Your task to perform on an android device: Add "dell xps" to the cart on walmart.com Image 0: 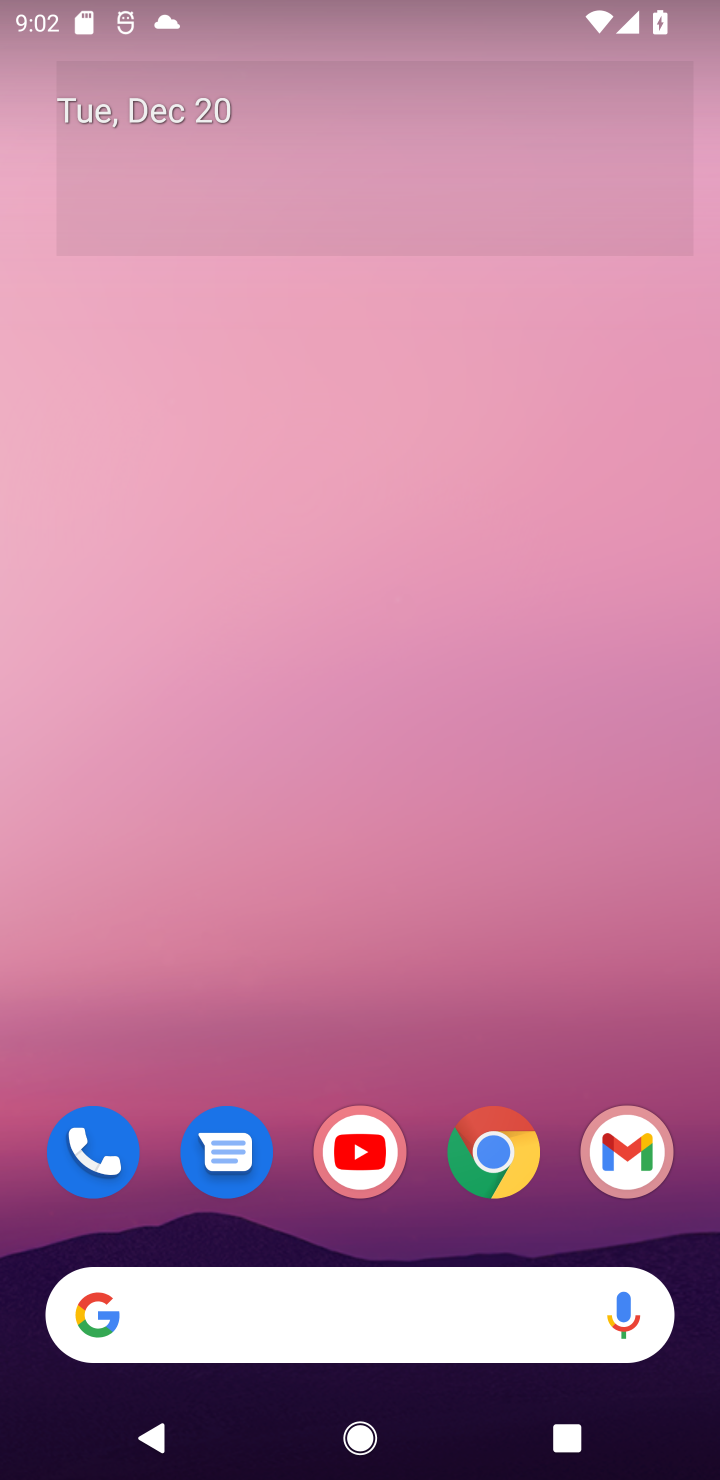
Step 0: click (517, 1167)
Your task to perform on an android device: Add "dell xps" to the cart on walmart.com Image 1: 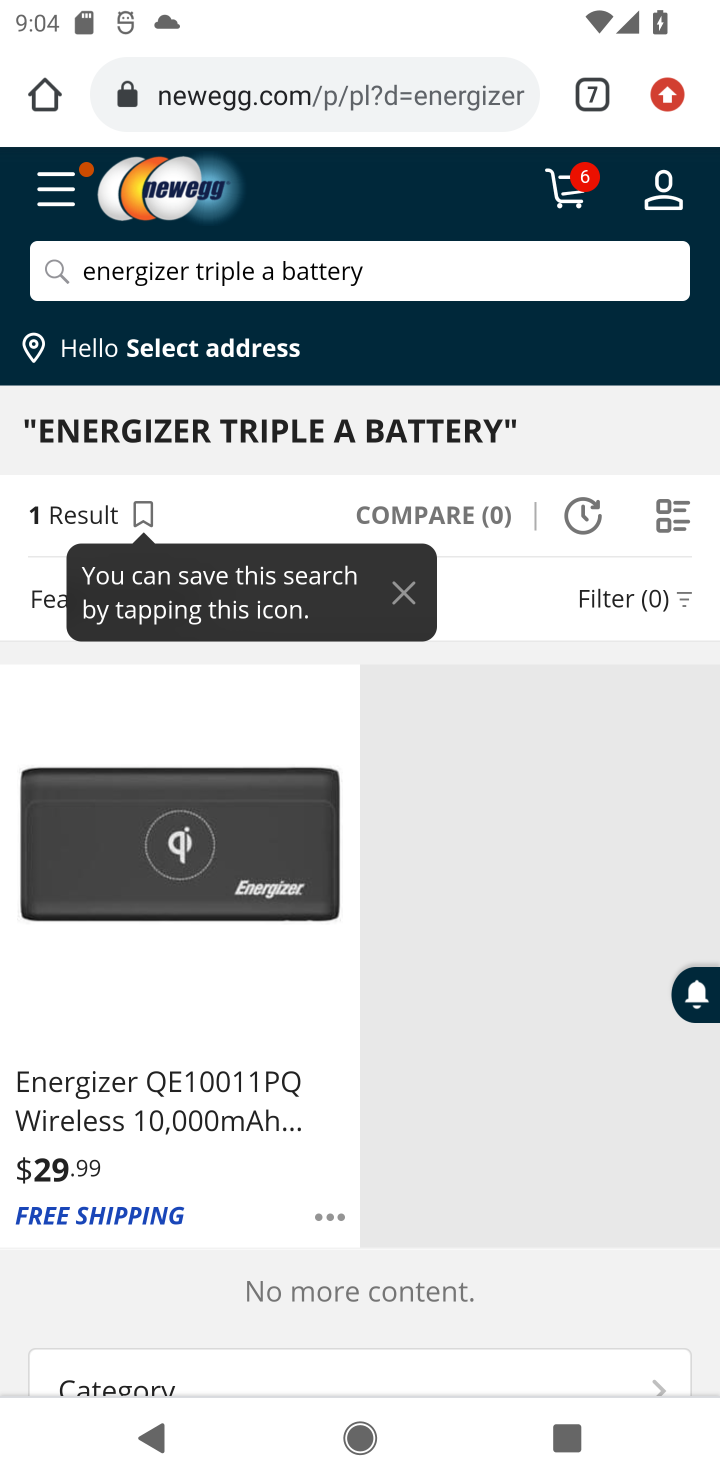
Step 1: click (582, 100)
Your task to perform on an android device: Add "dell xps" to the cart on walmart.com Image 2: 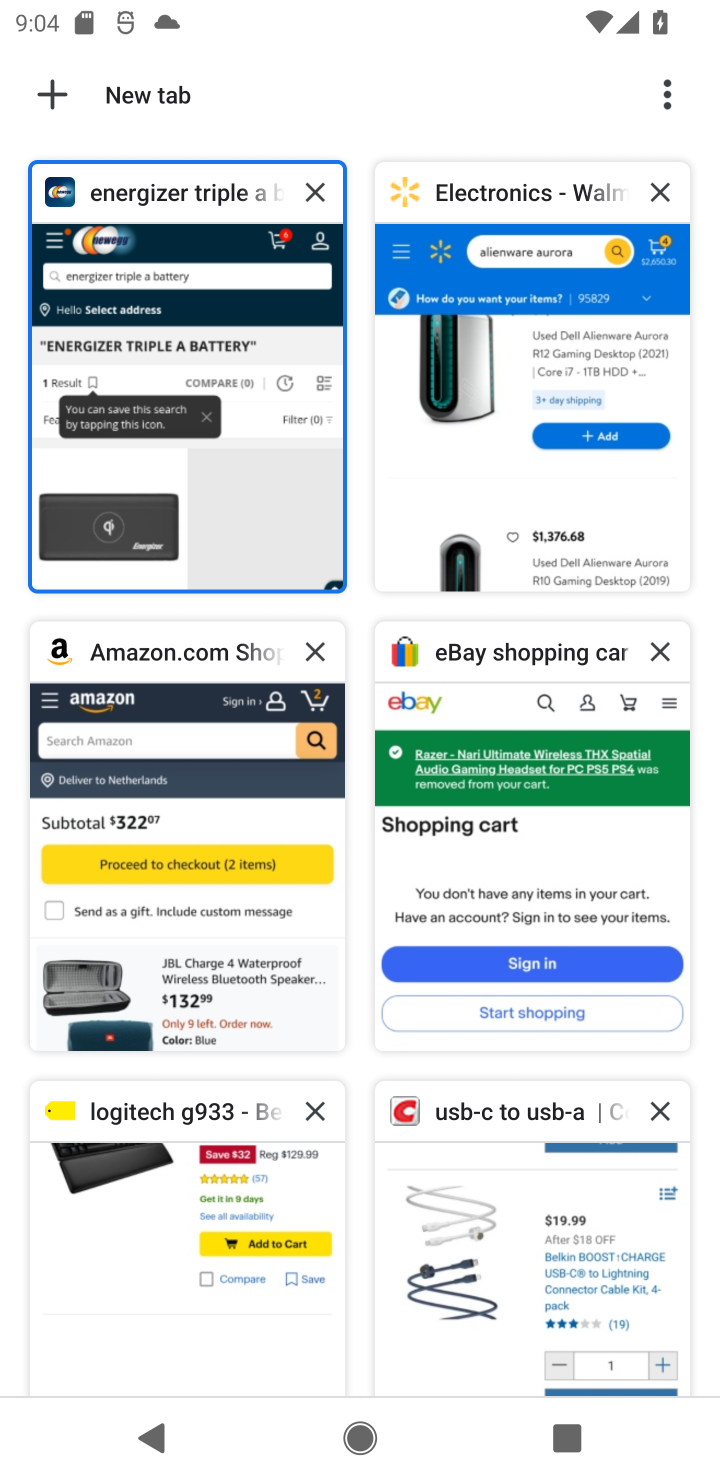
Step 2: click (509, 374)
Your task to perform on an android device: Add "dell xps" to the cart on walmart.com Image 3: 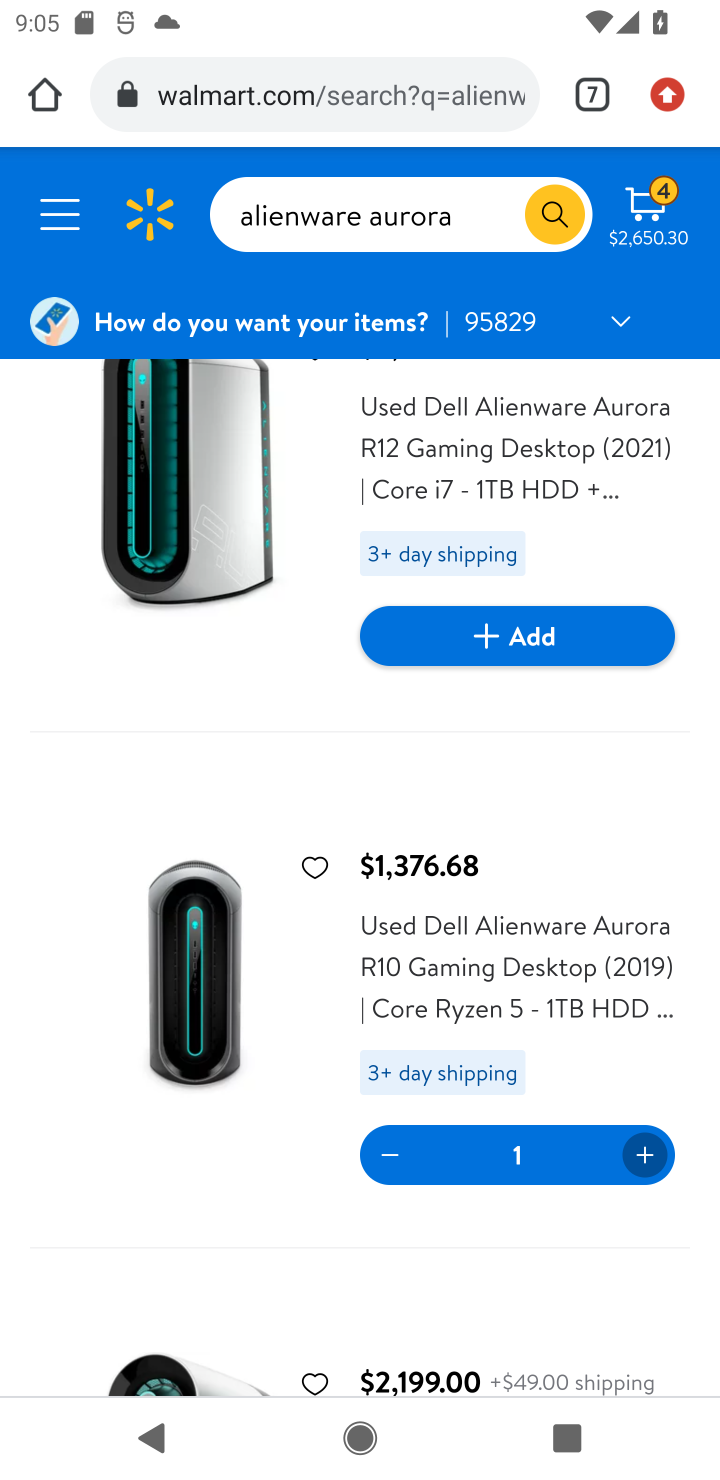
Step 3: click (454, 196)
Your task to perform on an android device: Add "dell xps" to the cart on walmart.com Image 4: 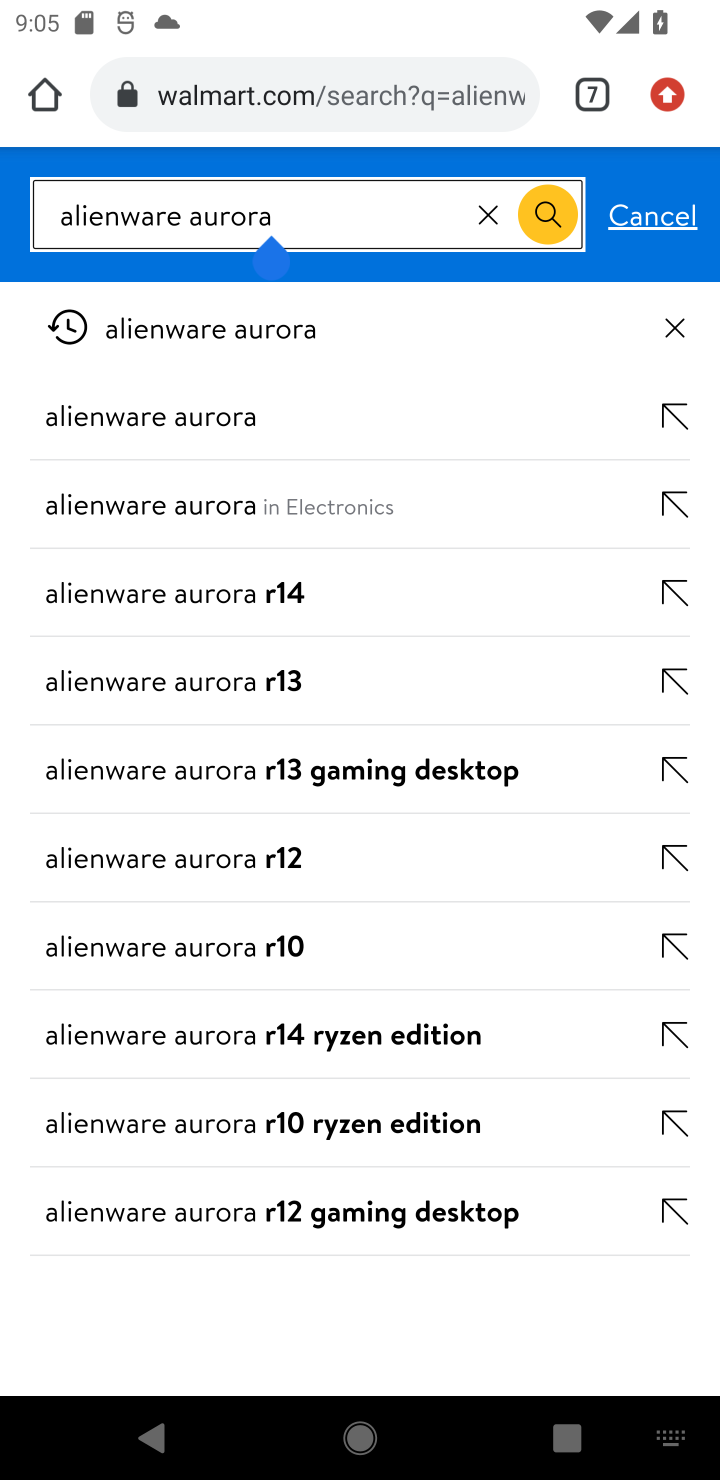
Step 4: click (498, 217)
Your task to perform on an android device: Add "dell xps" to the cart on walmart.com Image 5: 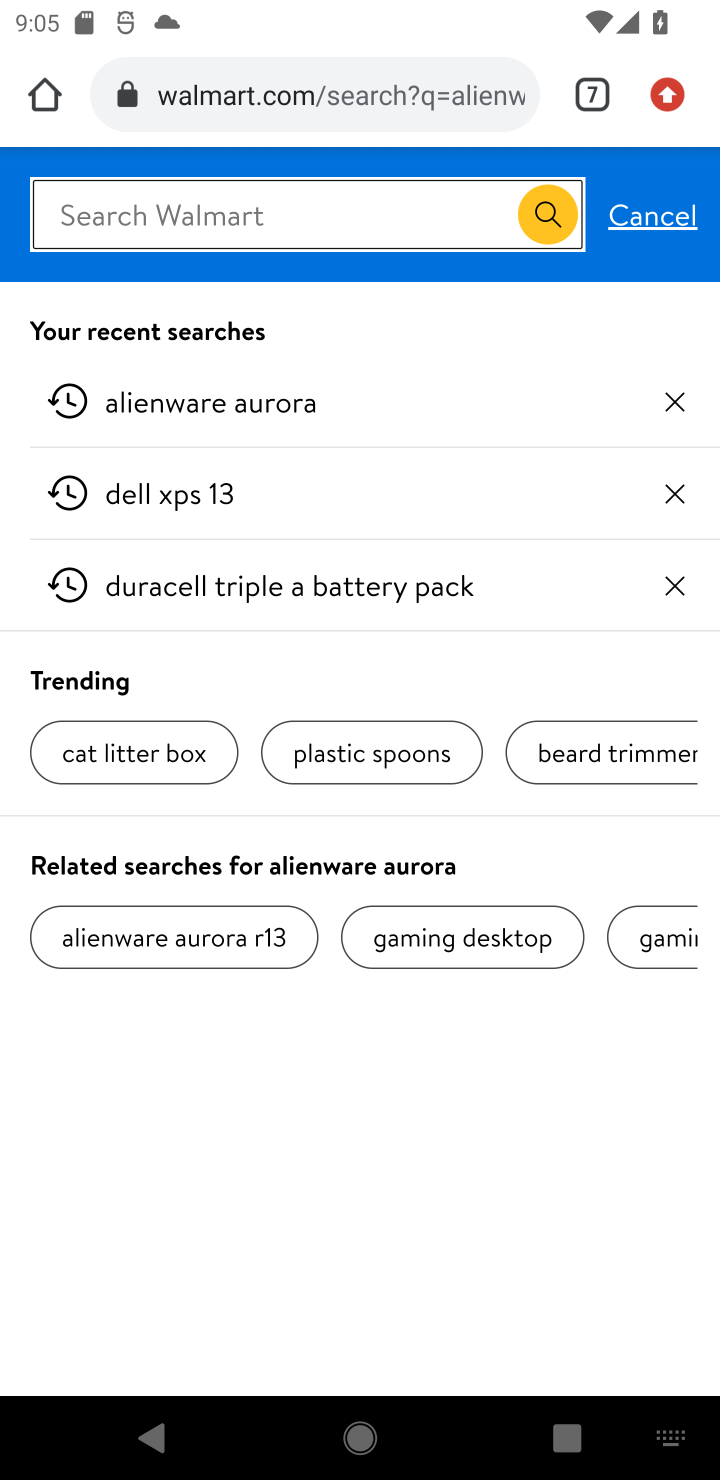
Step 5: type "dell xps"
Your task to perform on an android device: Add "dell xps" to the cart on walmart.com Image 6: 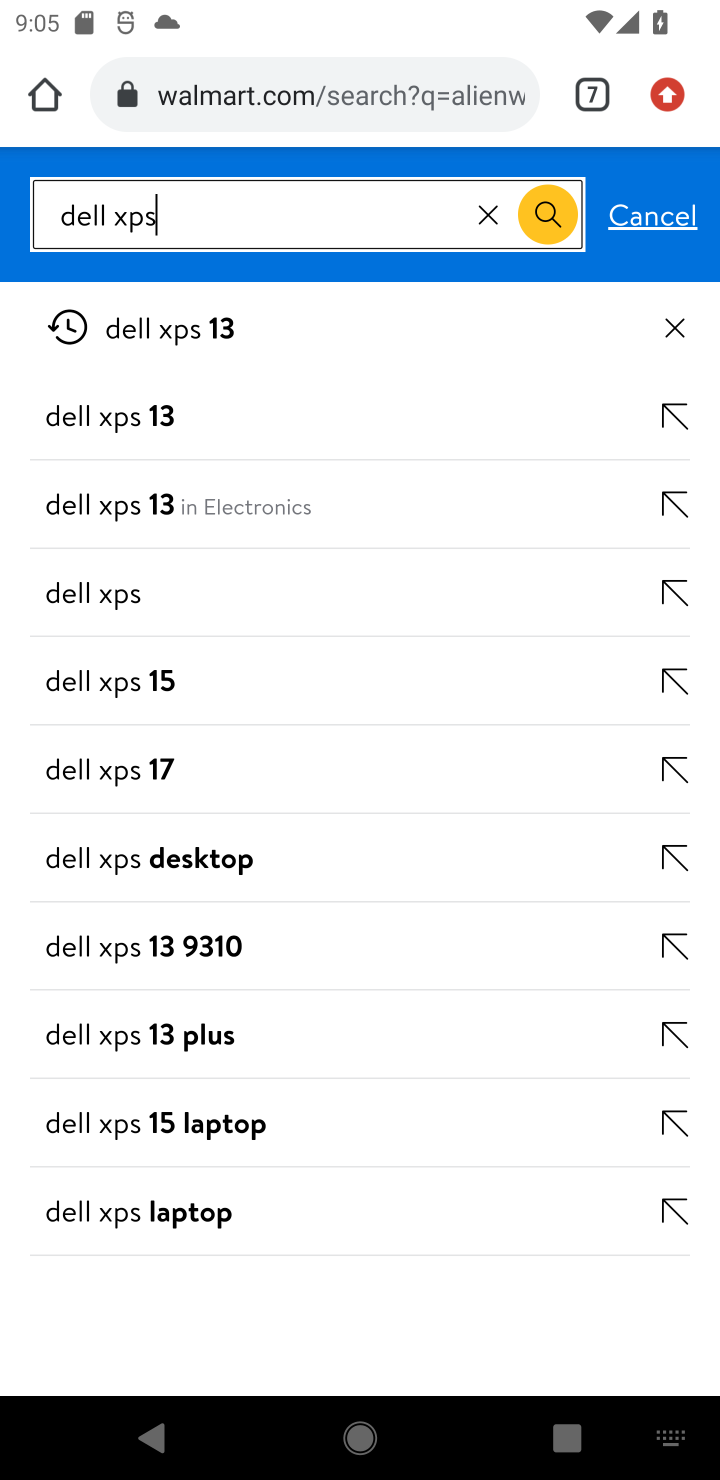
Step 6: click (88, 513)
Your task to perform on an android device: Add "dell xps" to the cart on walmart.com Image 7: 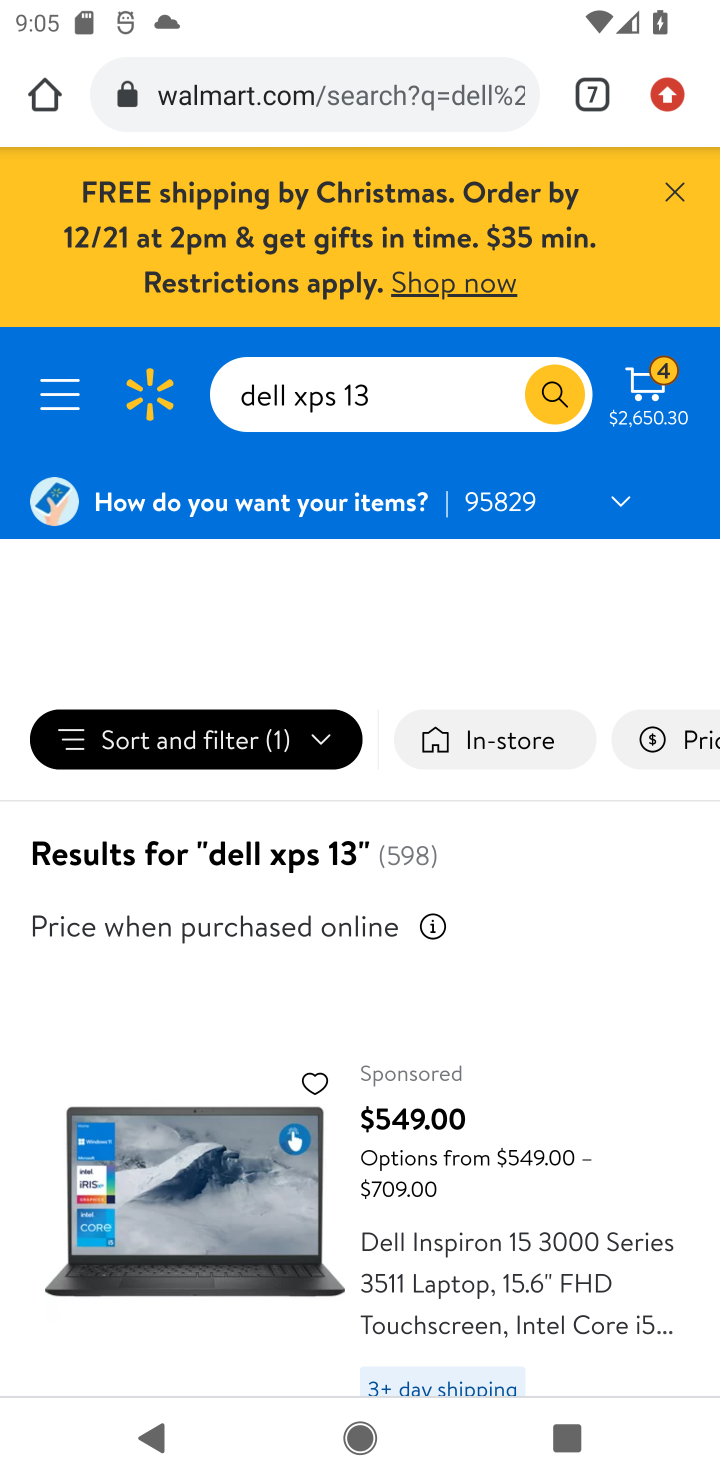
Step 7: drag from (643, 1114) to (608, 0)
Your task to perform on an android device: Add "dell xps" to the cart on walmart.com Image 8: 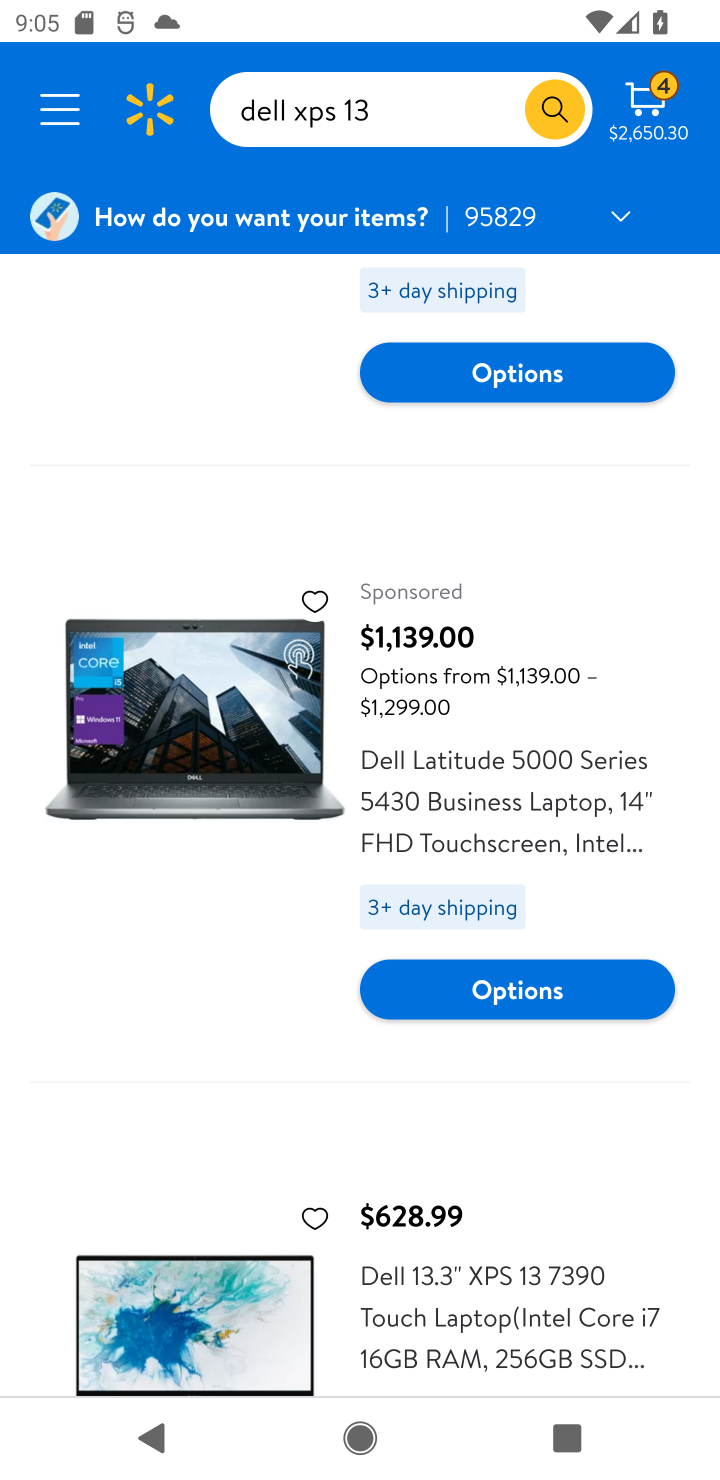
Step 8: drag from (462, 1128) to (528, 536)
Your task to perform on an android device: Add "dell xps" to the cart on walmart.com Image 9: 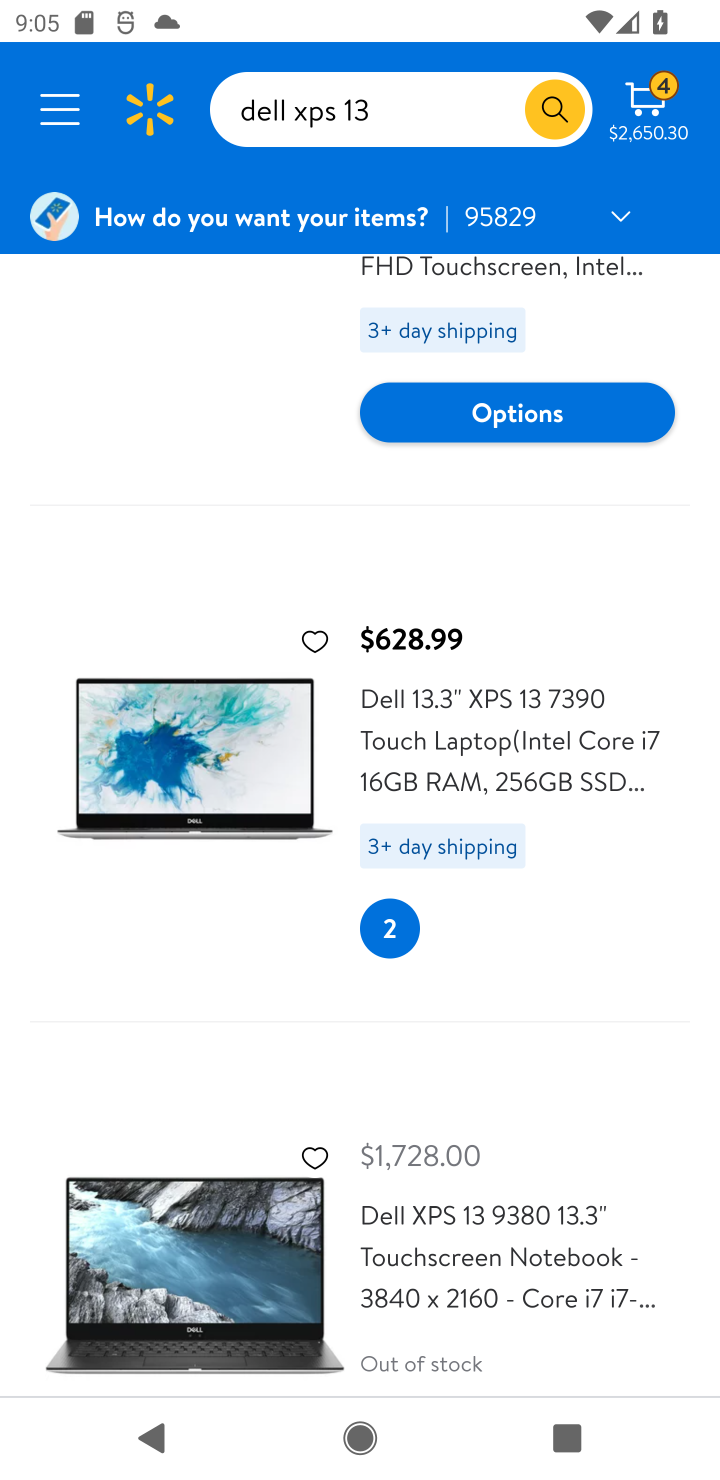
Step 9: click (482, 785)
Your task to perform on an android device: Add "dell xps" to the cart on walmart.com Image 10: 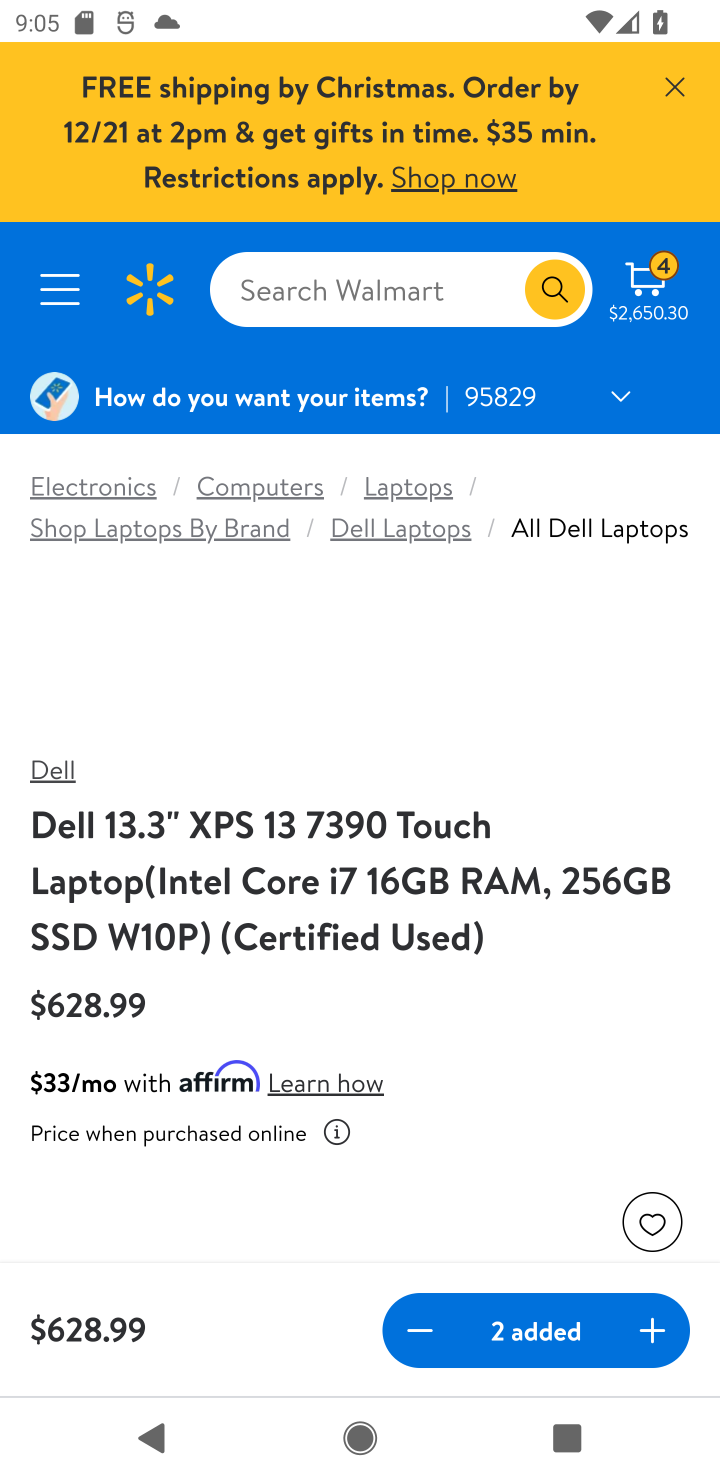
Step 10: click (649, 1321)
Your task to perform on an android device: Add "dell xps" to the cart on walmart.com Image 11: 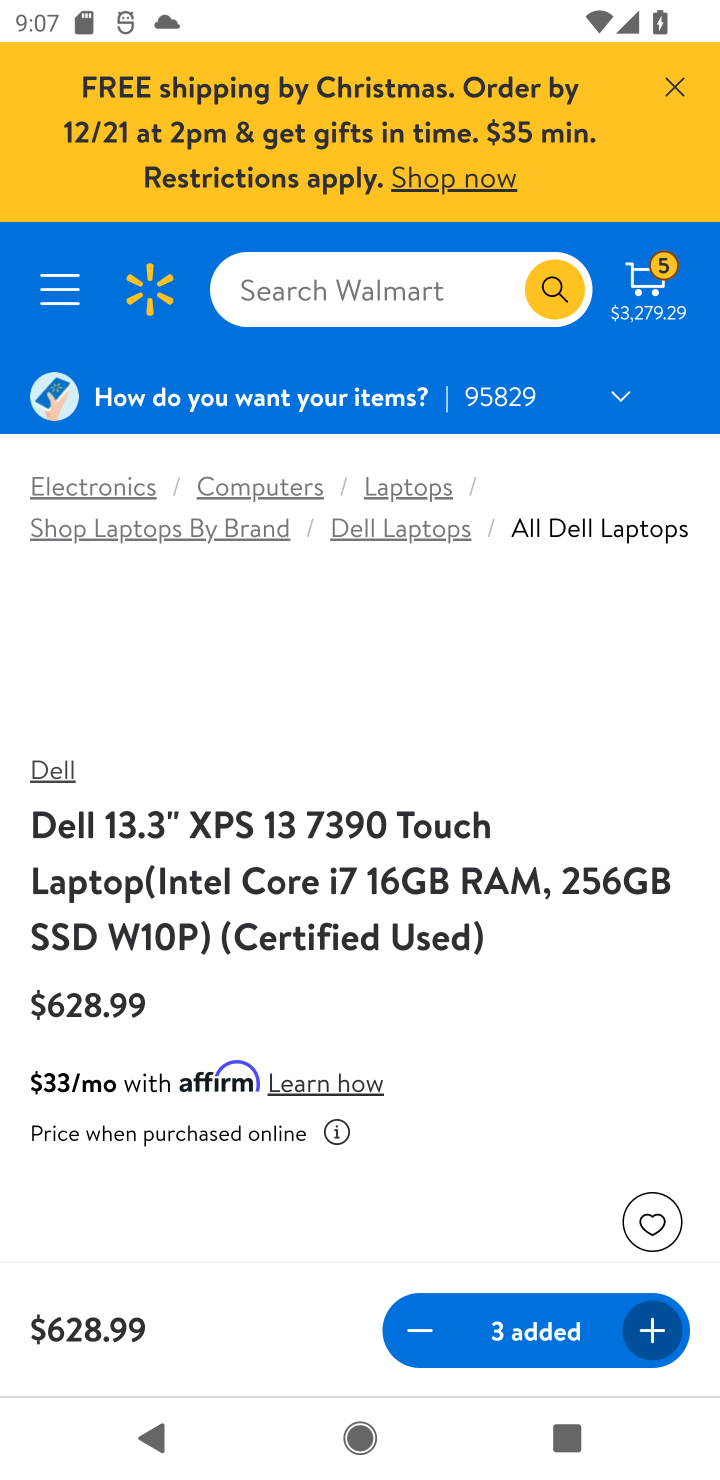
Step 11: task complete